Your task to perform on an android device: Open Yahoo.com Image 0: 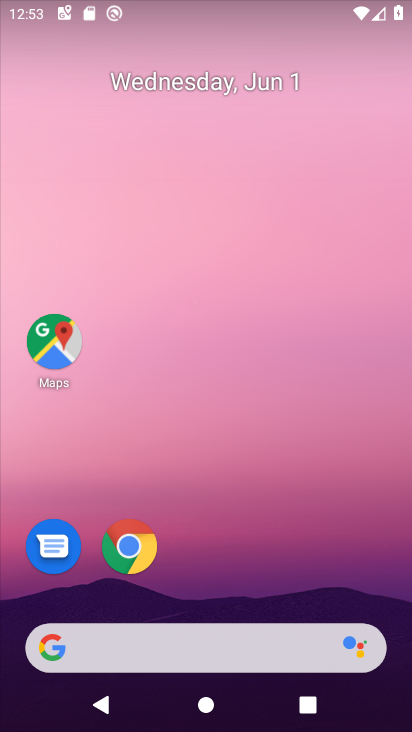
Step 0: click (114, 538)
Your task to perform on an android device: Open Yahoo.com Image 1: 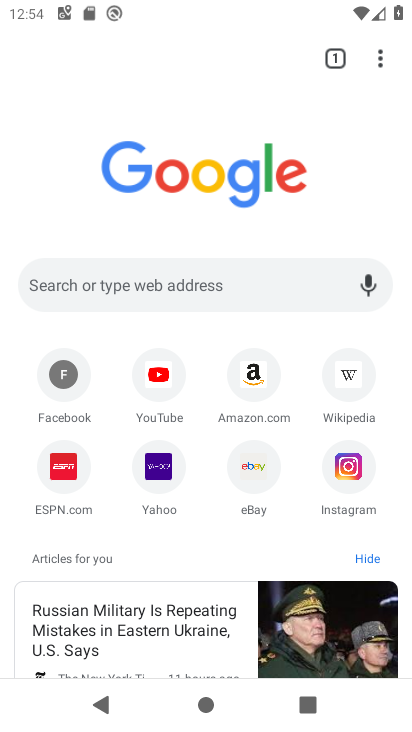
Step 1: click (162, 469)
Your task to perform on an android device: Open Yahoo.com Image 2: 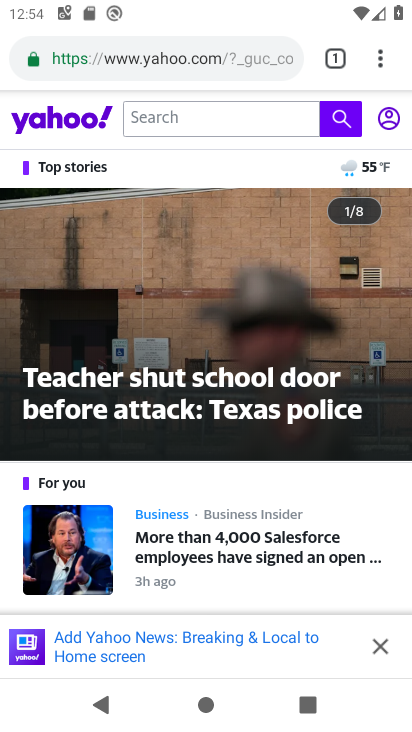
Step 2: task complete